Your task to perform on an android device: change text size in settings app Image 0: 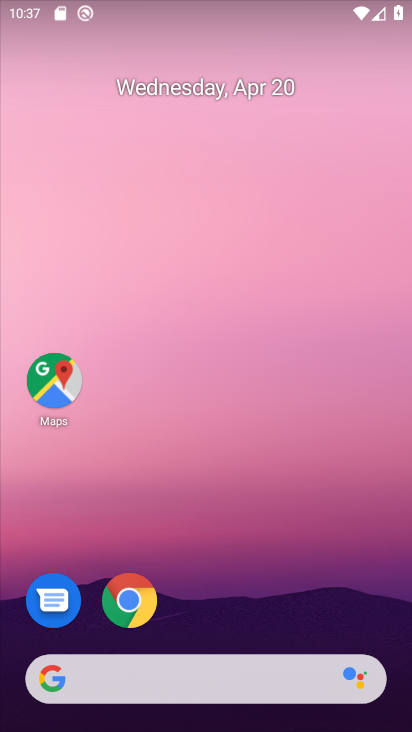
Step 0: drag from (267, 566) to (239, 10)
Your task to perform on an android device: change text size in settings app Image 1: 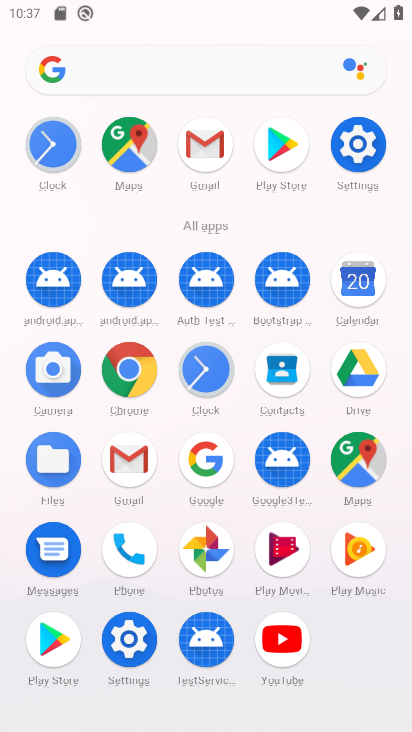
Step 1: click (355, 141)
Your task to perform on an android device: change text size in settings app Image 2: 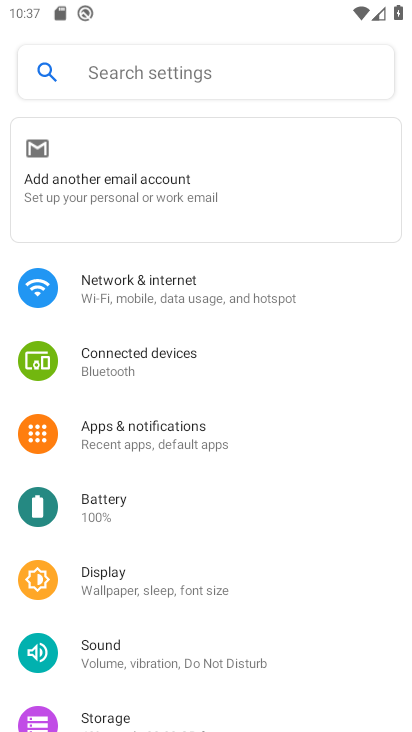
Step 2: click (185, 573)
Your task to perform on an android device: change text size in settings app Image 3: 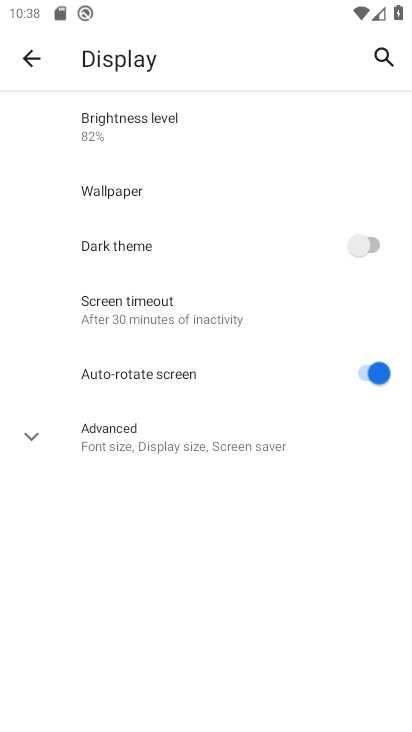
Step 3: click (26, 430)
Your task to perform on an android device: change text size in settings app Image 4: 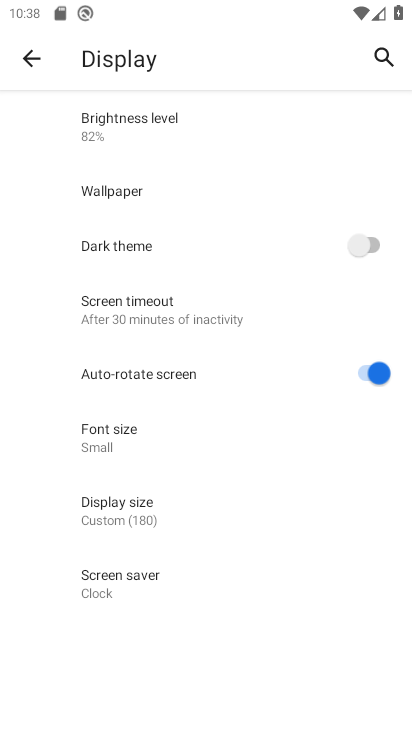
Step 4: click (166, 433)
Your task to perform on an android device: change text size in settings app Image 5: 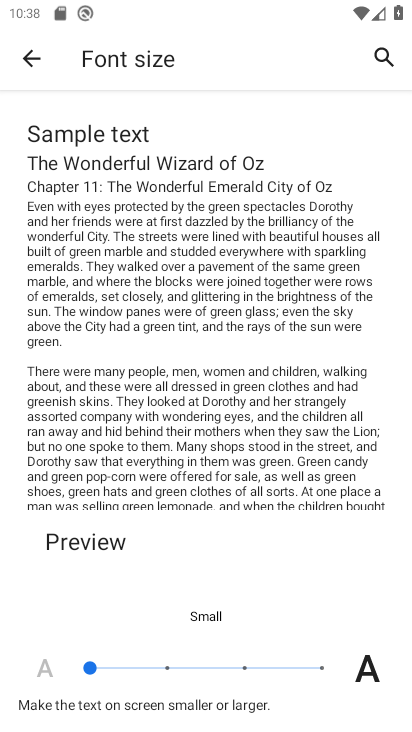
Step 5: click (160, 663)
Your task to perform on an android device: change text size in settings app Image 6: 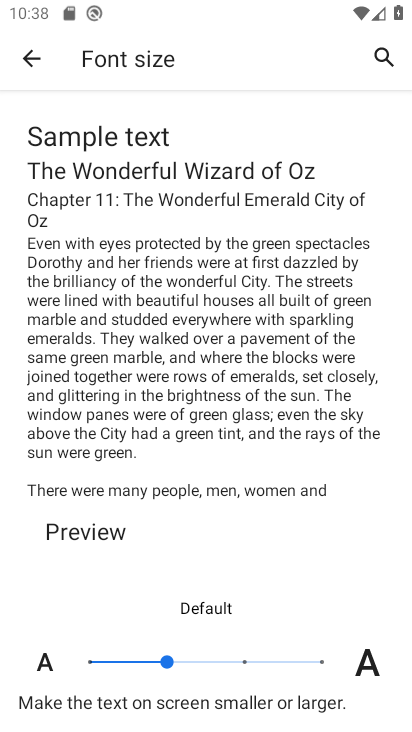
Step 6: task complete